Your task to perform on an android device: set the stopwatch Image 0: 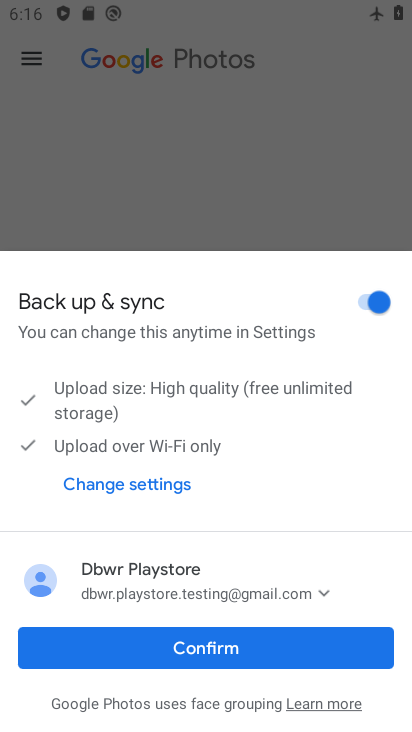
Step 0: press home button
Your task to perform on an android device: set the stopwatch Image 1: 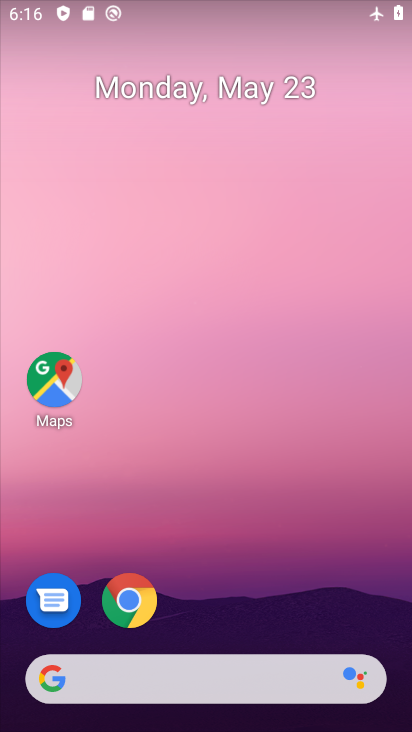
Step 1: drag from (269, 527) to (270, 249)
Your task to perform on an android device: set the stopwatch Image 2: 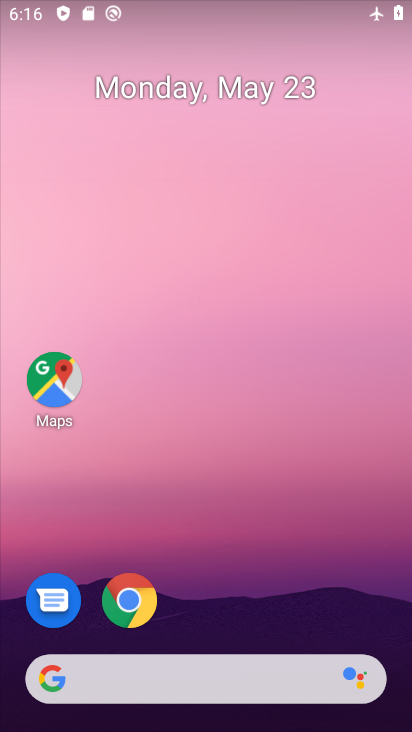
Step 2: drag from (247, 617) to (239, 175)
Your task to perform on an android device: set the stopwatch Image 3: 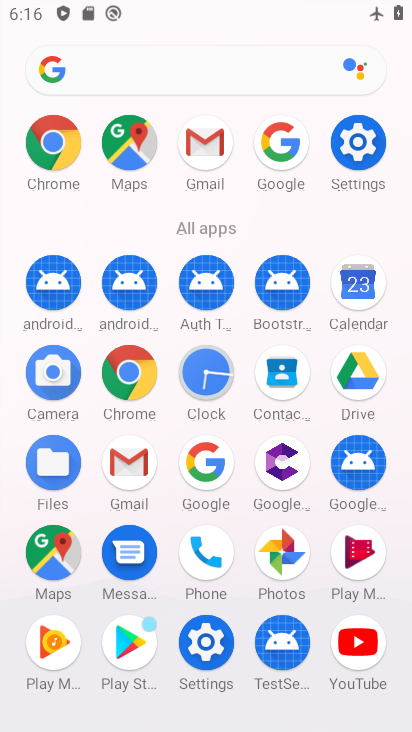
Step 3: click (214, 383)
Your task to perform on an android device: set the stopwatch Image 4: 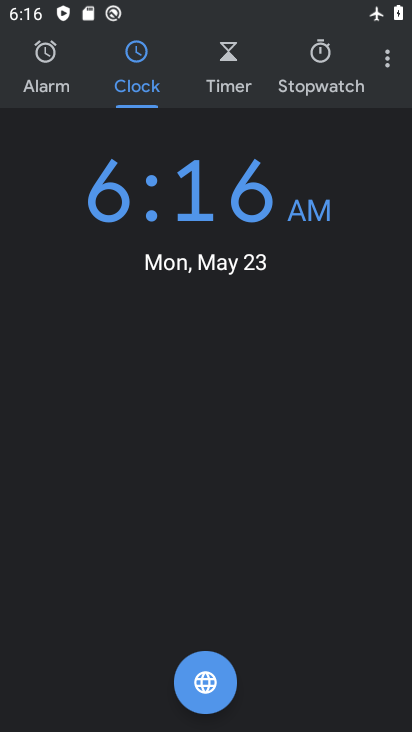
Step 4: click (302, 74)
Your task to perform on an android device: set the stopwatch Image 5: 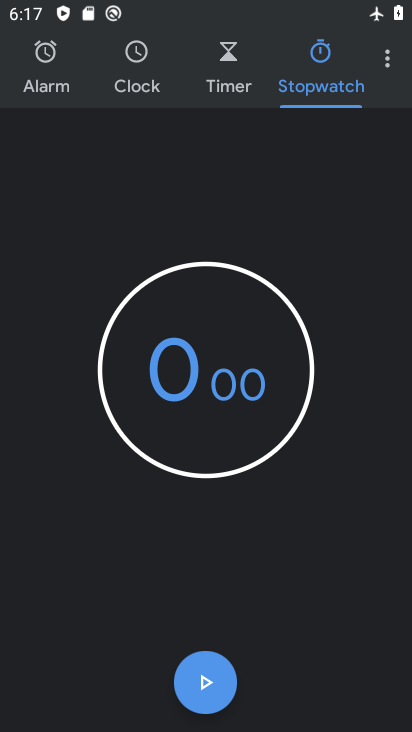
Step 5: click (220, 698)
Your task to perform on an android device: set the stopwatch Image 6: 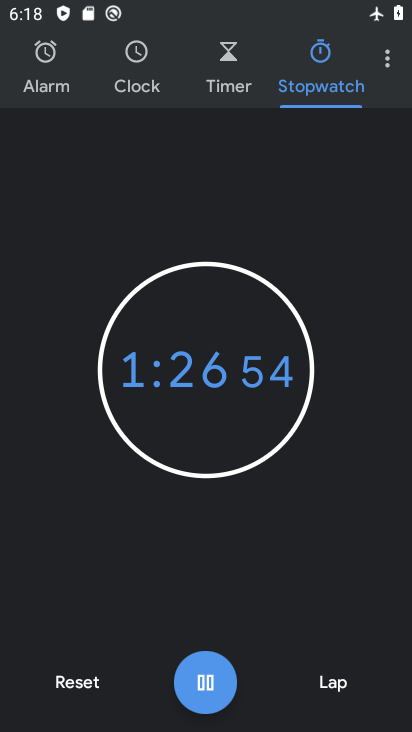
Step 6: task complete